Your task to perform on an android device: Go to accessibility settings Image 0: 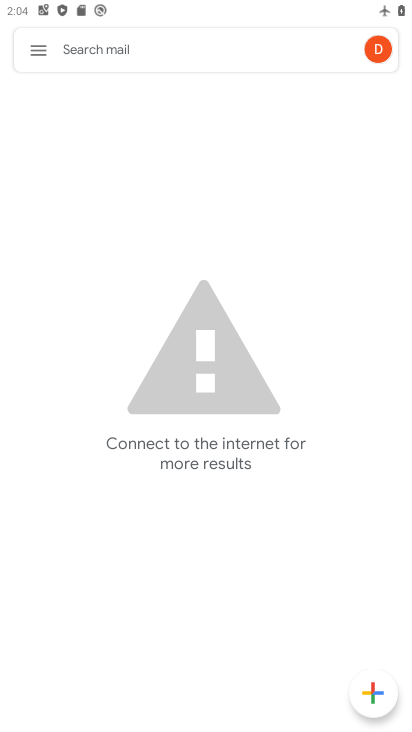
Step 0: press back button
Your task to perform on an android device: Go to accessibility settings Image 1: 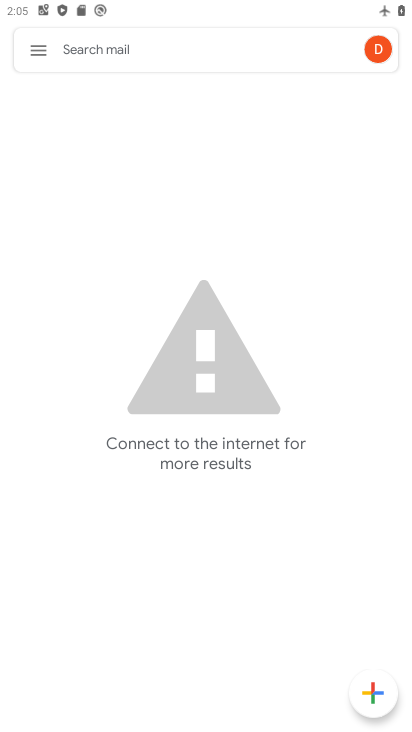
Step 1: press back button
Your task to perform on an android device: Go to accessibility settings Image 2: 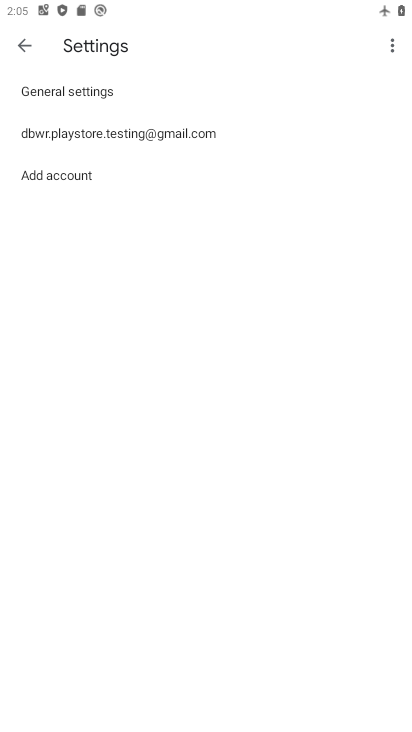
Step 2: press back button
Your task to perform on an android device: Go to accessibility settings Image 3: 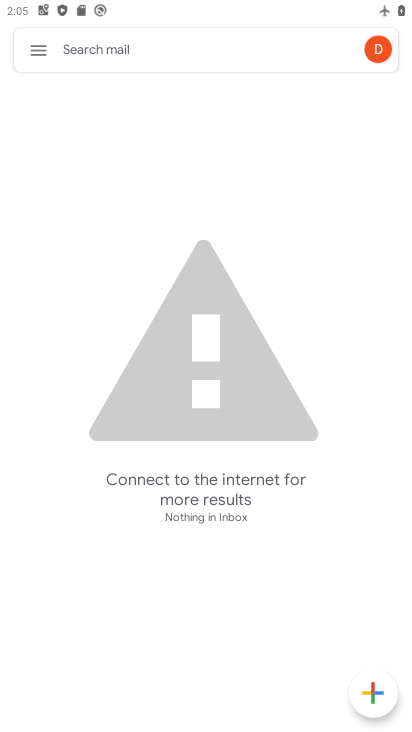
Step 3: press home button
Your task to perform on an android device: Go to accessibility settings Image 4: 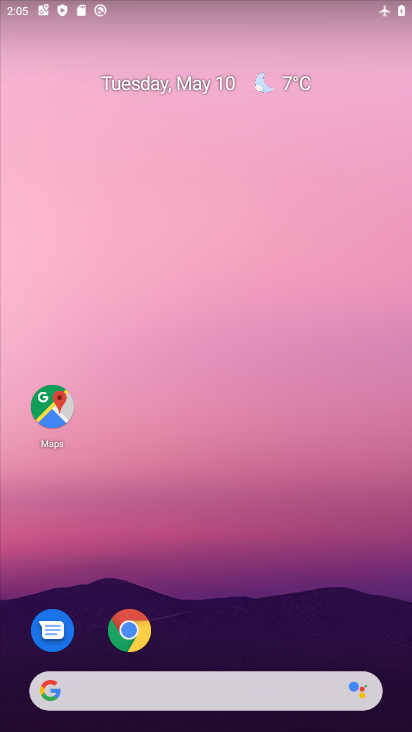
Step 4: drag from (219, 572) to (173, 15)
Your task to perform on an android device: Go to accessibility settings Image 5: 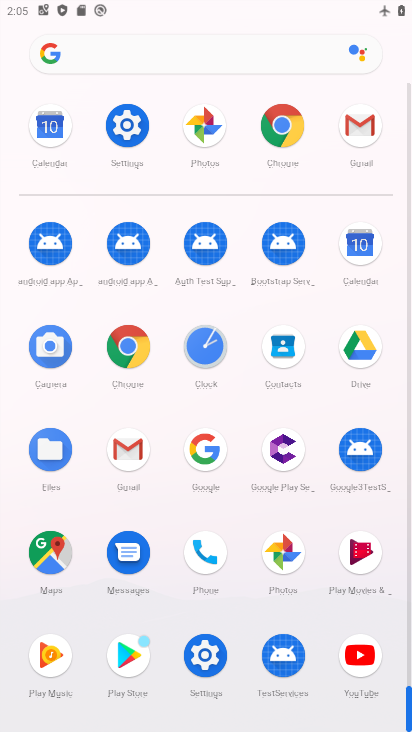
Step 5: click (127, 125)
Your task to perform on an android device: Go to accessibility settings Image 6: 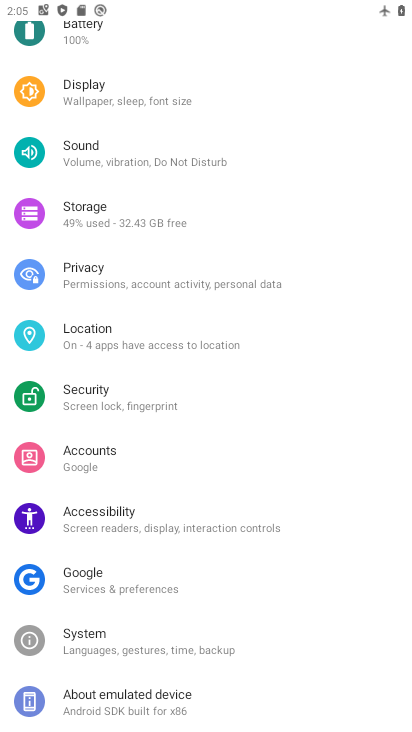
Step 6: drag from (194, 104) to (198, 425)
Your task to perform on an android device: Go to accessibility settings Image 7: 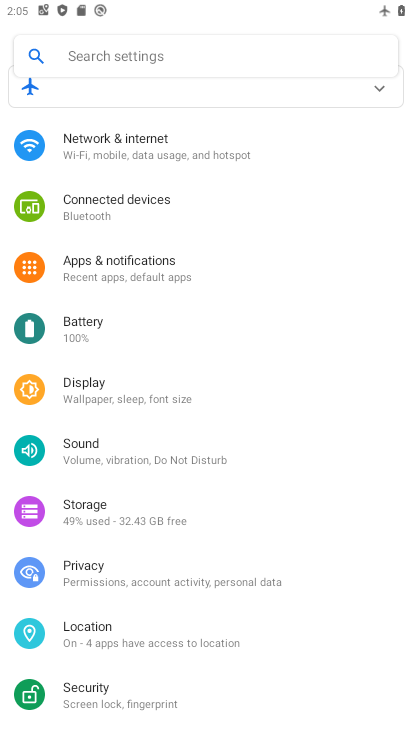
Step 7: drag from (217, 488) to (216, 134)
Your task to perform on an android device: Go to accessibility settings Image 8: 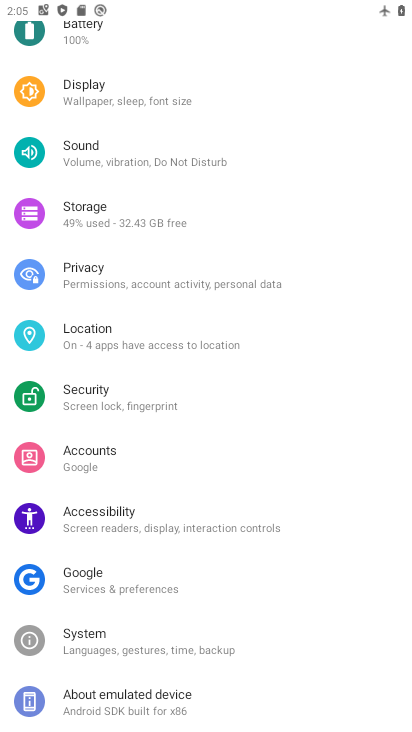
Step 8: drag from (213, 494) to (252, 113)
Your task to perform on an android device: Go to accessibility settings Image 9: 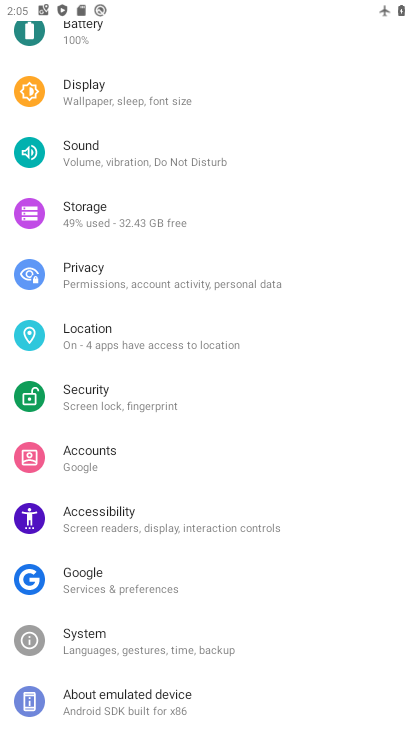
Step 9: click (110, 514)
Your task to perform on an android device: Go to accessibility settings Image 10: 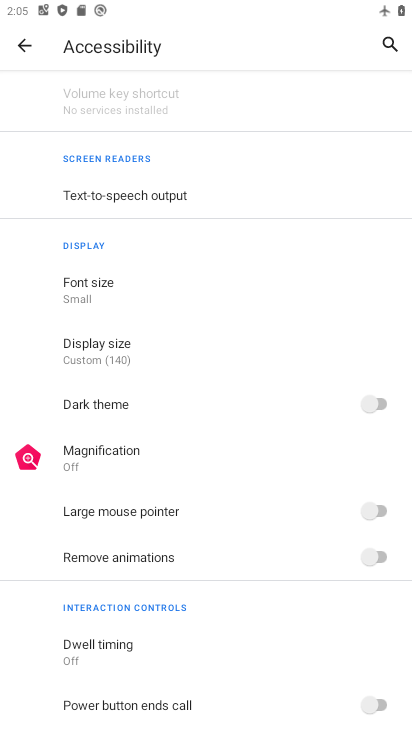
Step 10: task complete